Your task to perform on an android device: check the backup settings in the google photos Image 0: 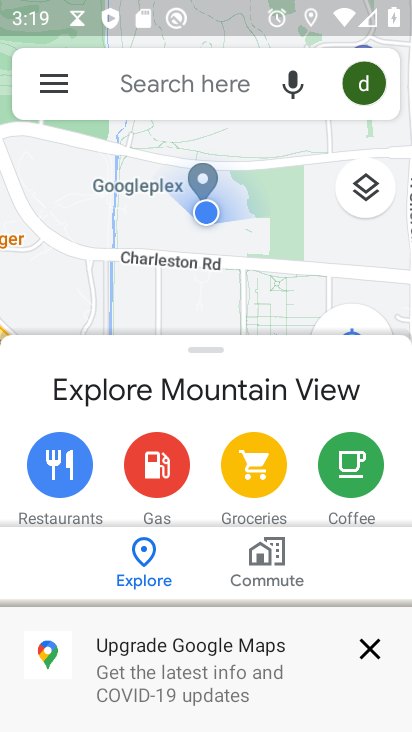
Step 0: press home button
Your task to perform on an android device: check the backup settings in the google photos Image 1: 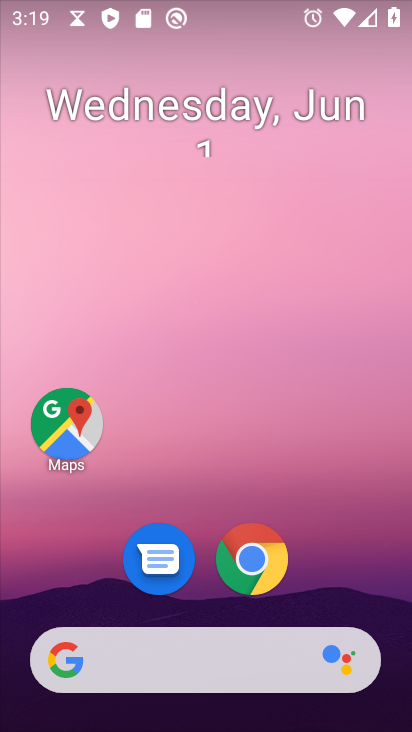
Step 1: drag from (305, 502) to (291, 62)
Your task to perform on an android device: check the backup settings in the google photos Image 2: 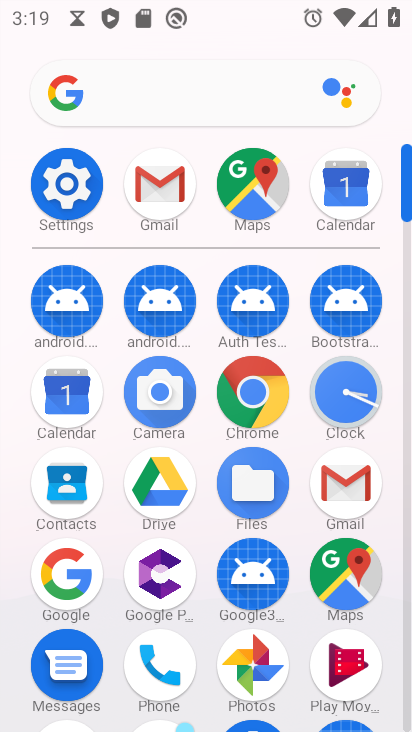
Step 2: click (256, 650)
Your task to perform on an android device: check the backup settings in the google photos Image 3: 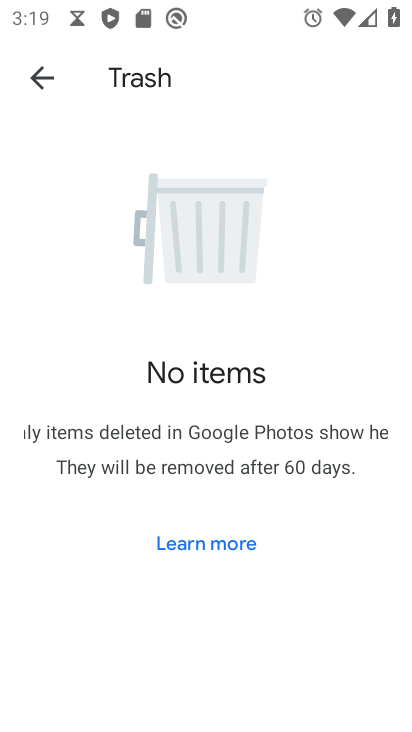
Step 3: click (40, 63)
Your task to perform on an android device: check the backup settings in the google photos Image 4: 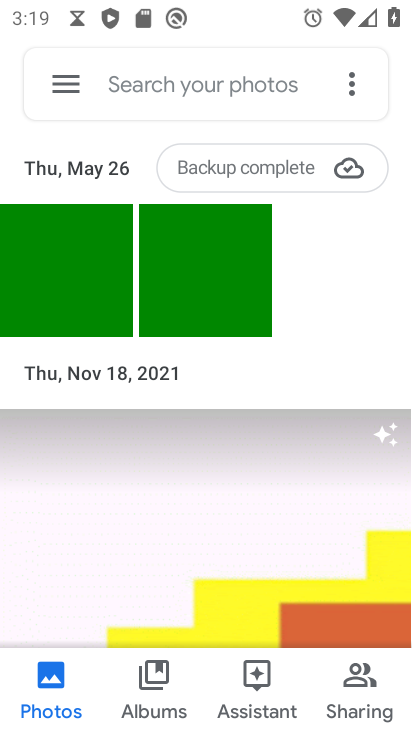
Step 4: click (52, 90)
Your task to perform on an android device: check the backup settings in the google photos Image 5: 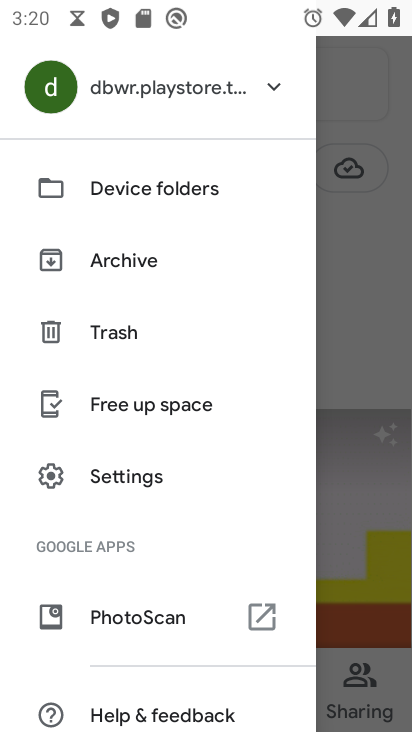
Step 5: click (131, 473)
Your task to perform on an android device: check the backup settings in the google photos Image 6: 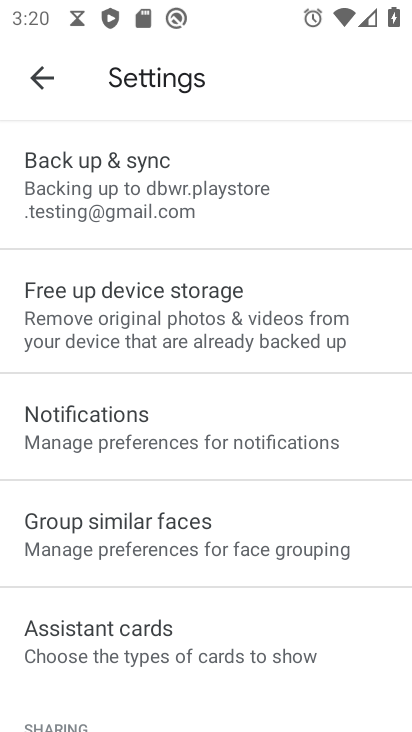
Step 6: click (84, 217)
Your task to perform on an android device: check the backup settings in the google photos Image 7: 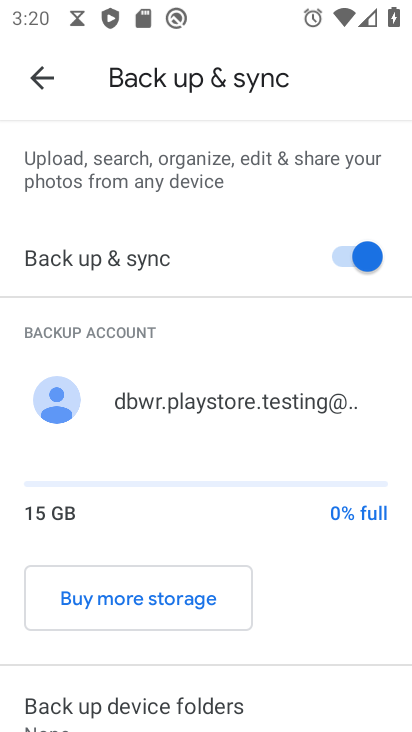
Step 7: task complete